Your task to perform on an android device: check battery use Image 0: 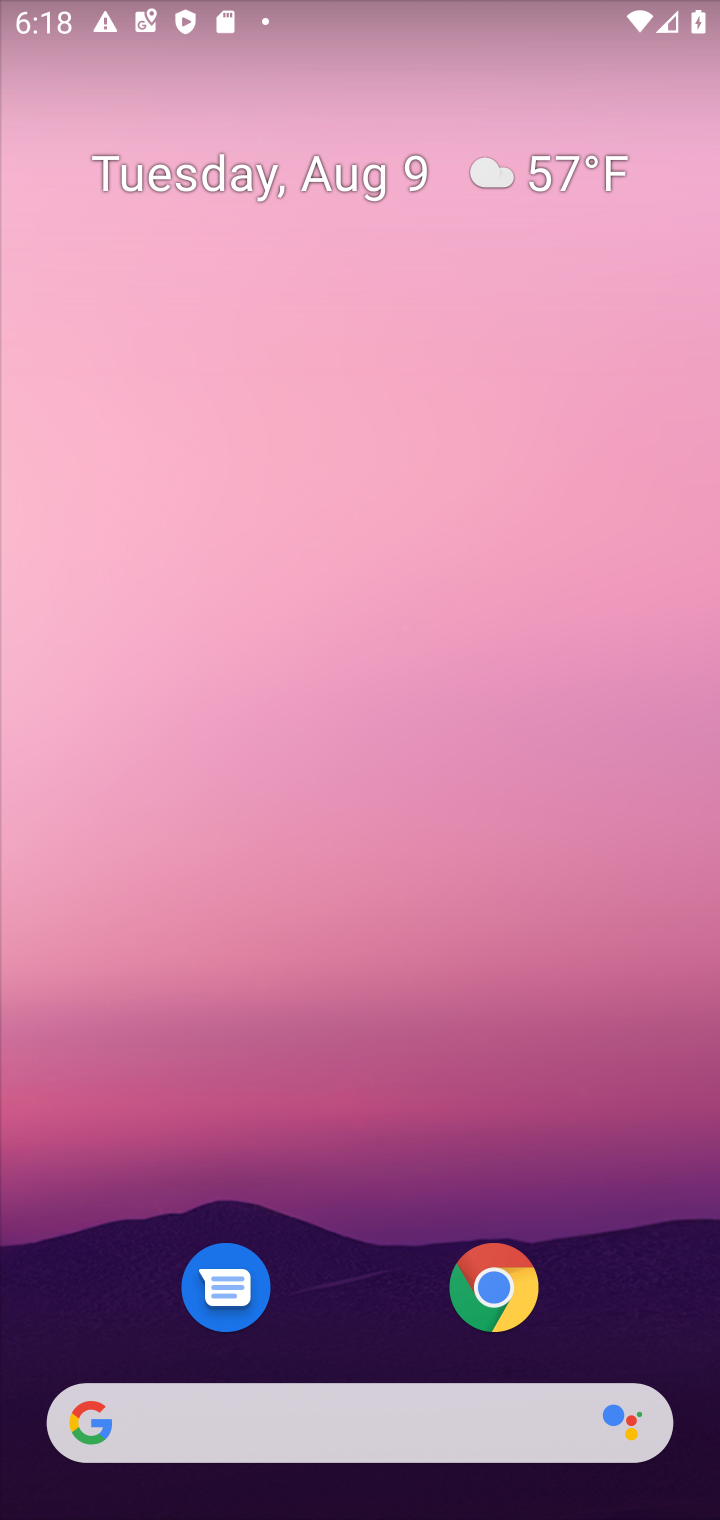
Step 0: drag from (333, 1004) to (333, 324)
Your task to perform on an android device: check battery use Image 1: 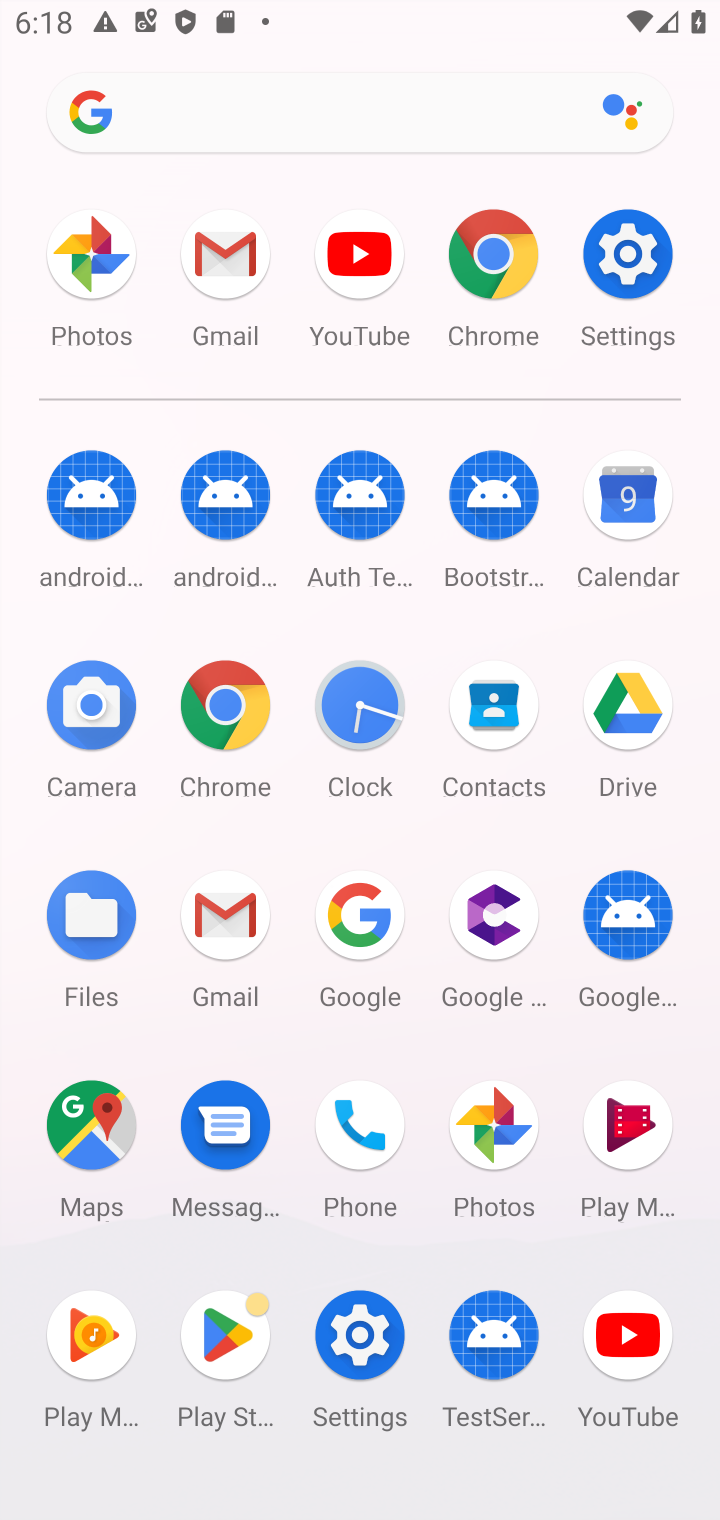
Step 1: click (639, 247)
Your task to perform on an android device: check battery use Image 2: 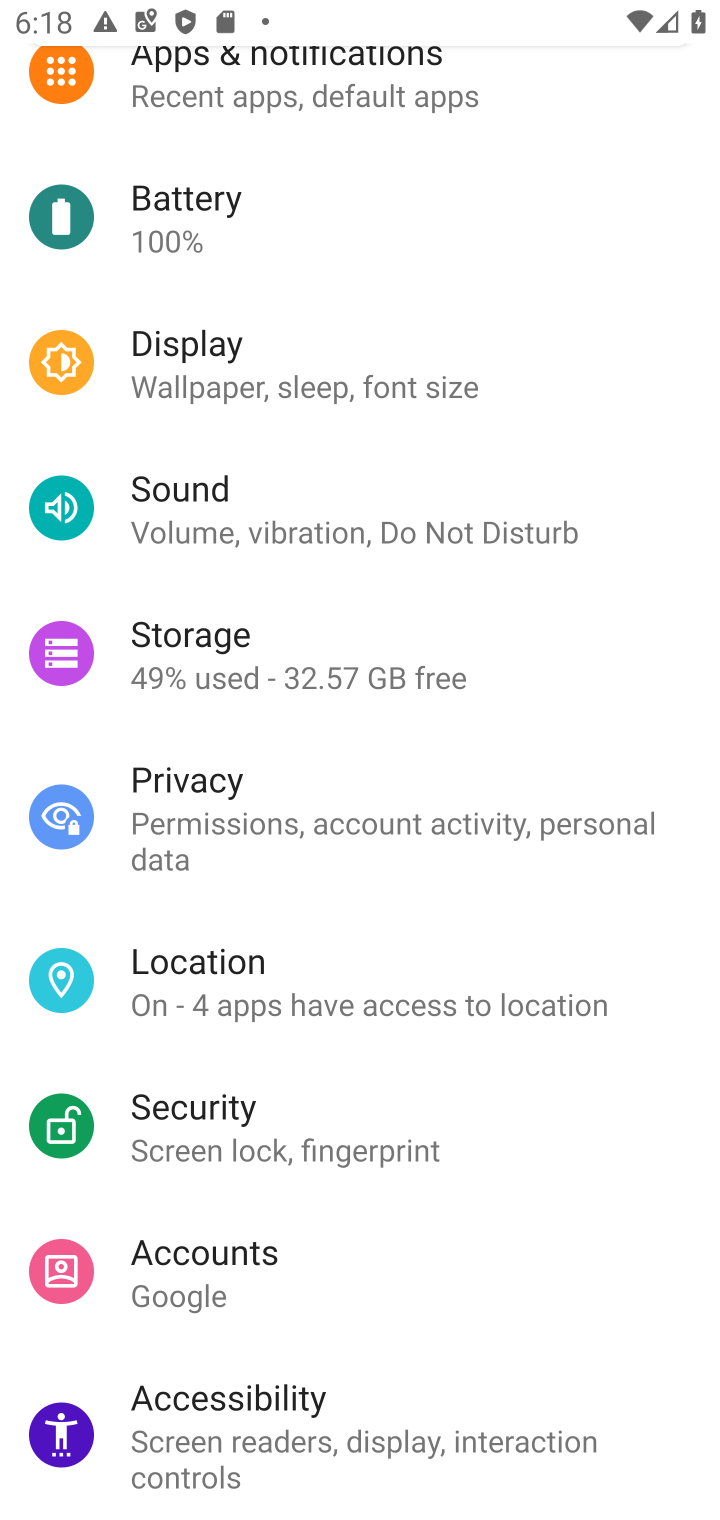
Step 2: click (188, 226)
Your task to perform on an android device: check battery use Image 3: 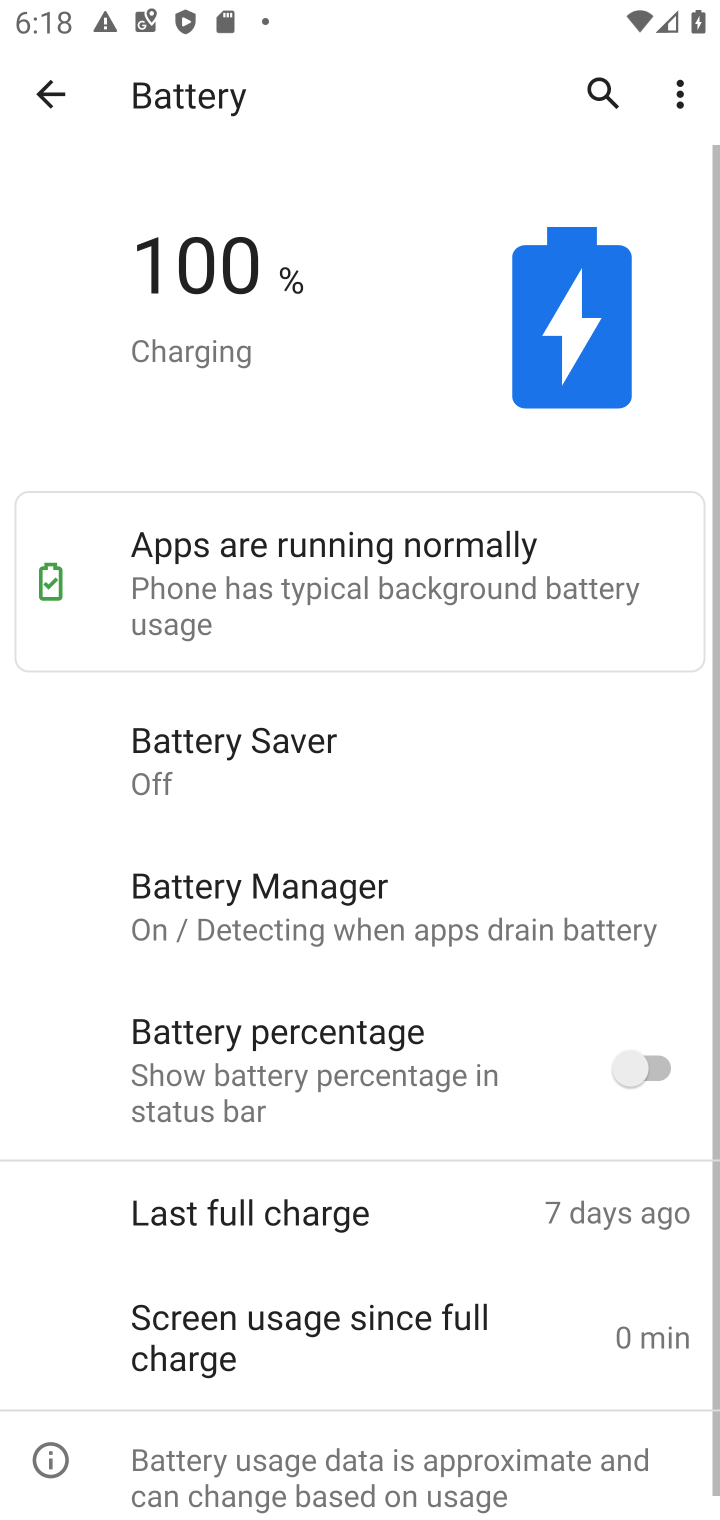
Step 3: task complete